Your task to perform on an android device: choose inbox layout in the gmail app Image 0: 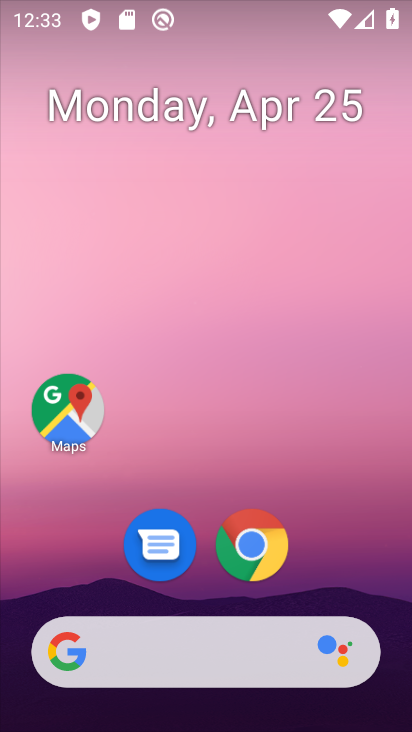
Step 0: drag from (322, 491) to (110, 94)
Your task to perform on an android device: choose inbox layout in the gmail app Image 1: 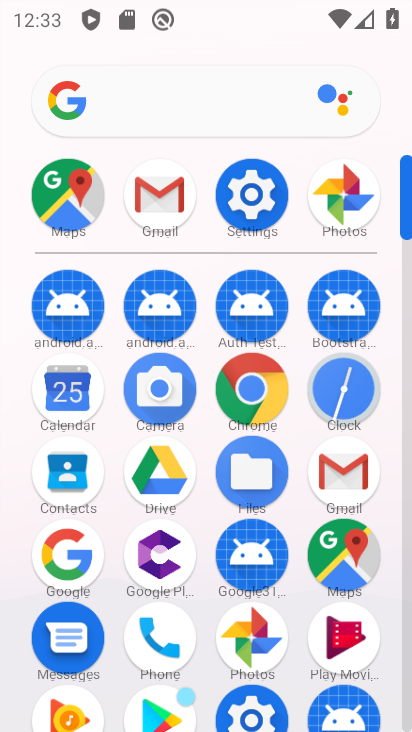
Step 1: click (162, 183)
Your task to perform on an android device: choose inbox layout in the gmail app Image 2: 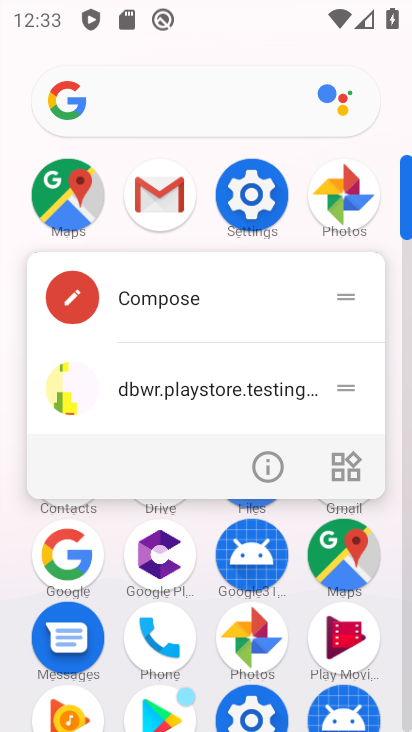
Step 2: click (162, 200)
Your task to perform on an android device: choose inbox layout in the gmail app Image 3: 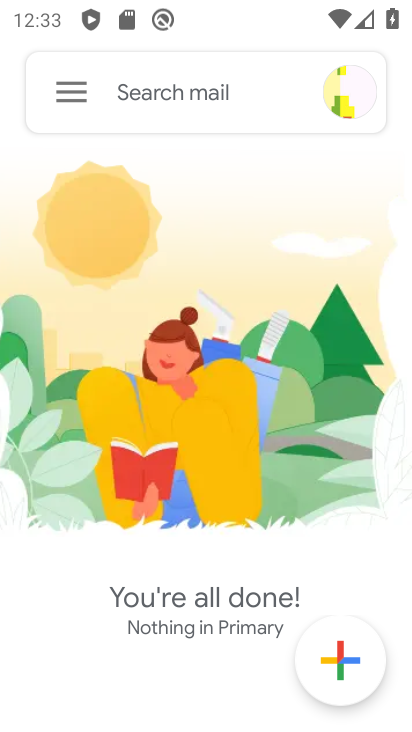
Step 3: click (62, 97)
Your task to perform on an android device: choose inbox layout in the gmail app Image 4: 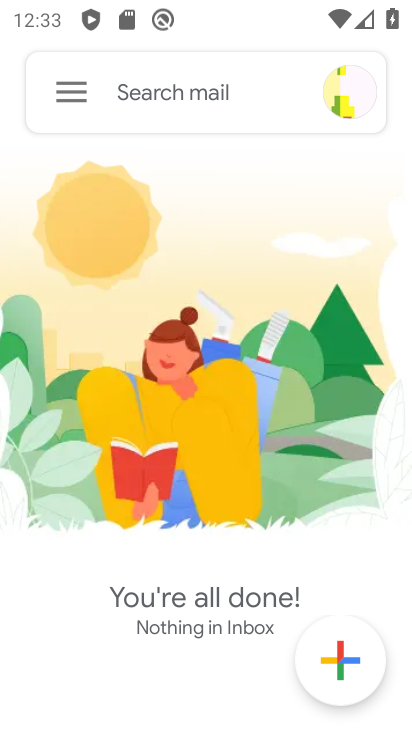
Step 4: click (76, 102)
Your task to perform on an android device: choose inbox layout in the gmail app Image 5: 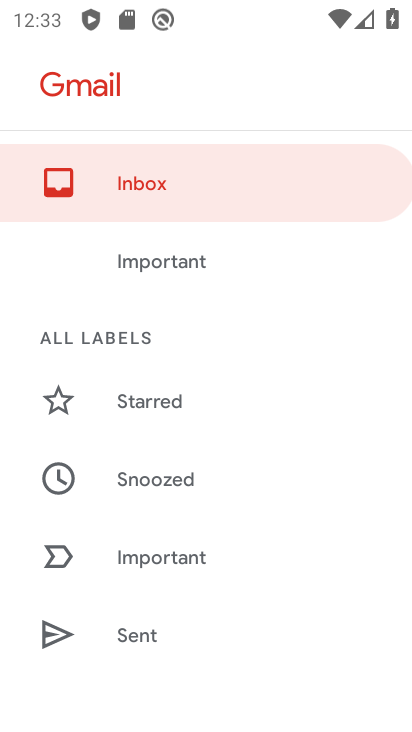
Step 5: task complete